Your task to perform on an android device: Open privacy settings Image 0: 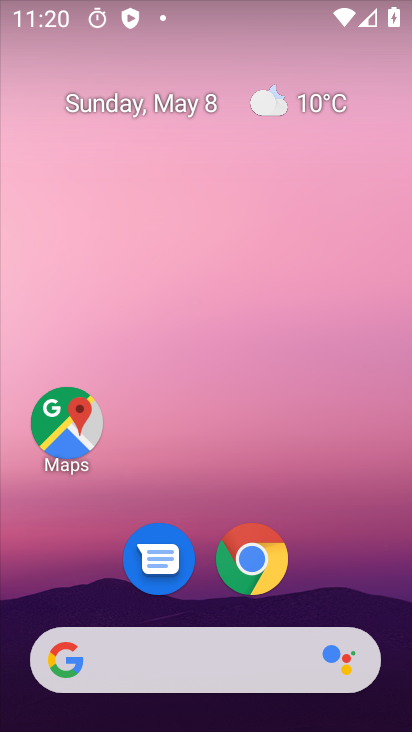
Step 0: drag from (212, 471) to (107, 3)
Your task to perform on an android device: Open privacy settings Image 1: 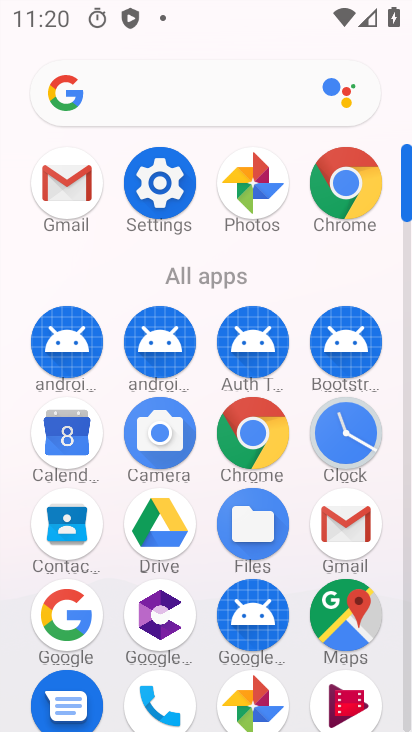
Step 1: click (146, 187)
Your task to perform on an android device: Open privacy settings Image 2: 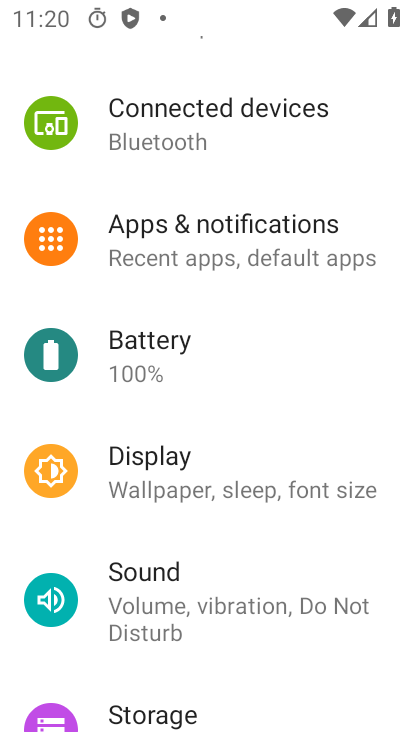
Step 2: drag from (195, 599) to (195, 197)
Your task to perform on an android device: Open privacy settings Image 3: 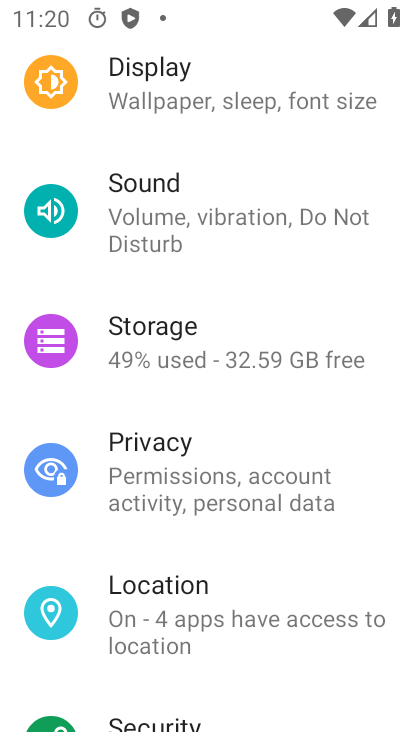
Step 3: click (151, 478)
Your task to perform on an android device: Open privacy settings Image 4: 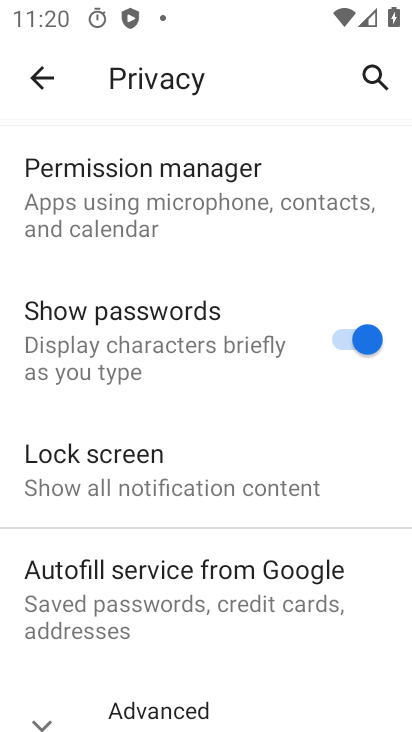
Step 4: task complete